Your task to perform on an android device: Go to privacy settings Image 0: 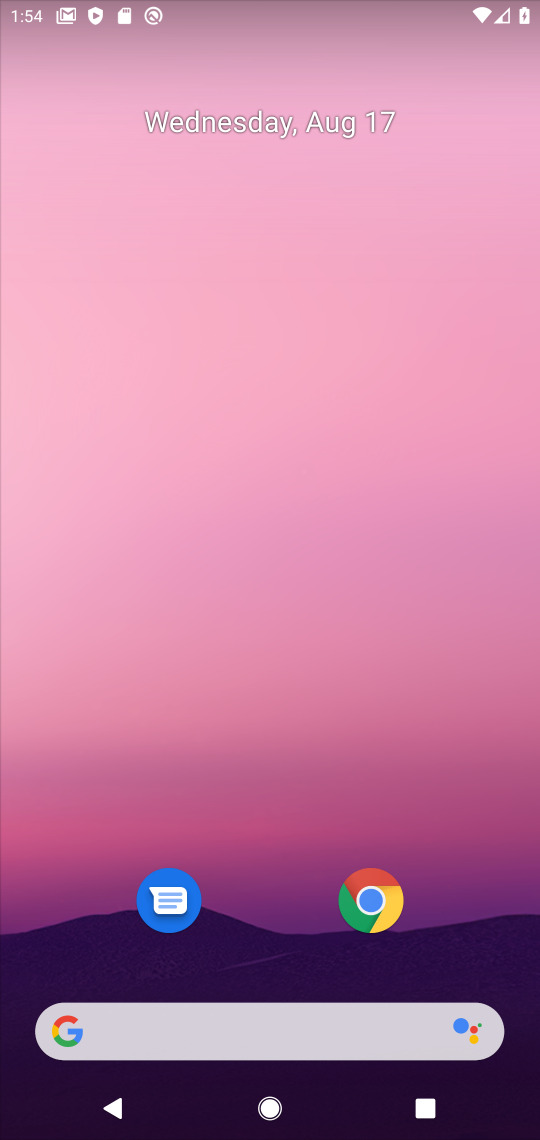
Step 0: drag from (268, 1007) to (337, 245)
Your task to perform on an android device: Go to privacy settings Image 1: 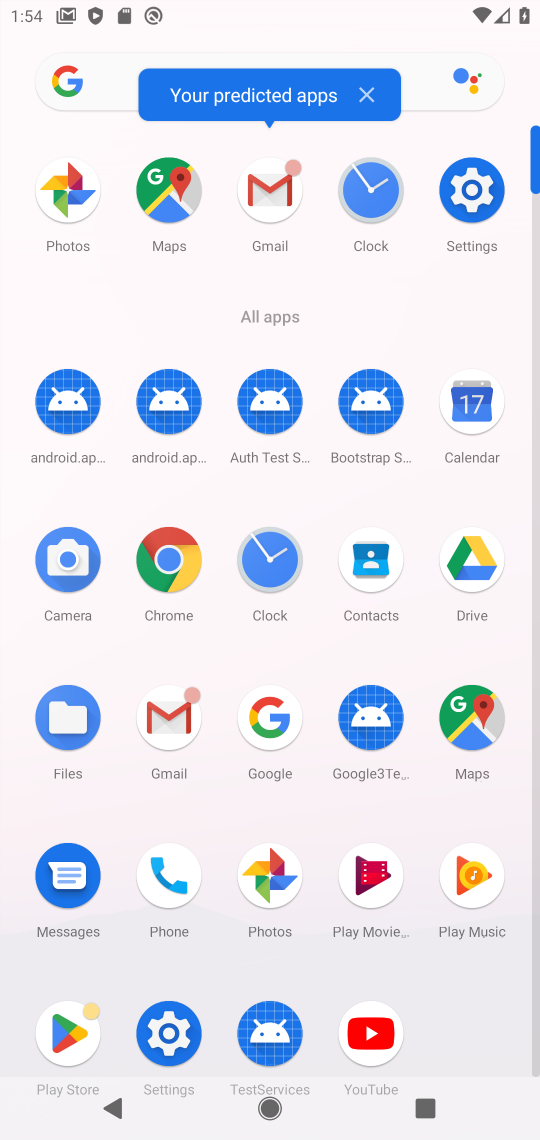
Step 1: click (481, 180)
Your task to perform on an android device: Go to privacy settings Image 2: 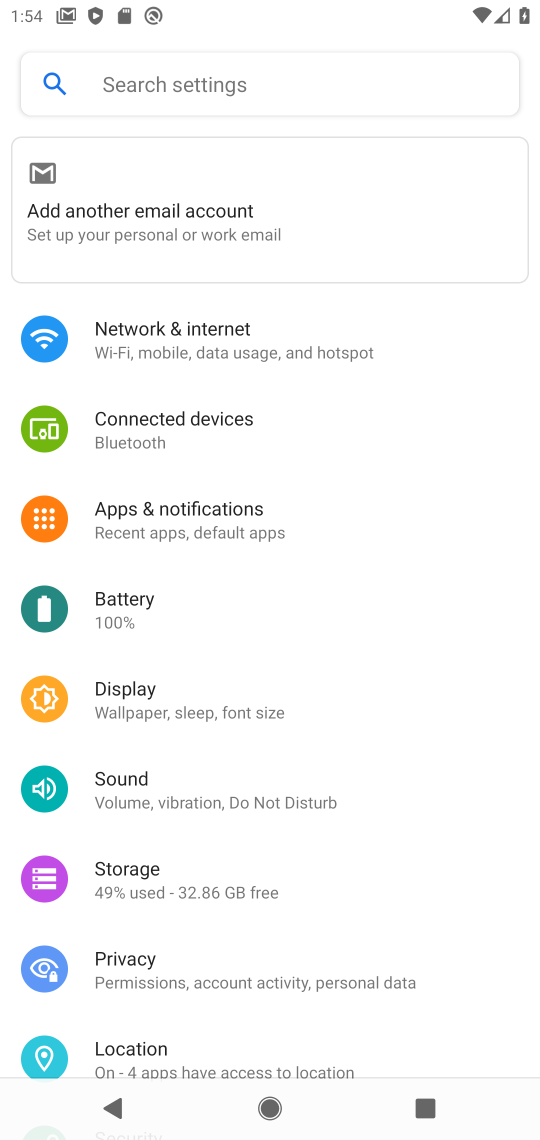
Step 2: click (158, 957)
Your task to perform on an android device: Go to privacy settings Image 3: 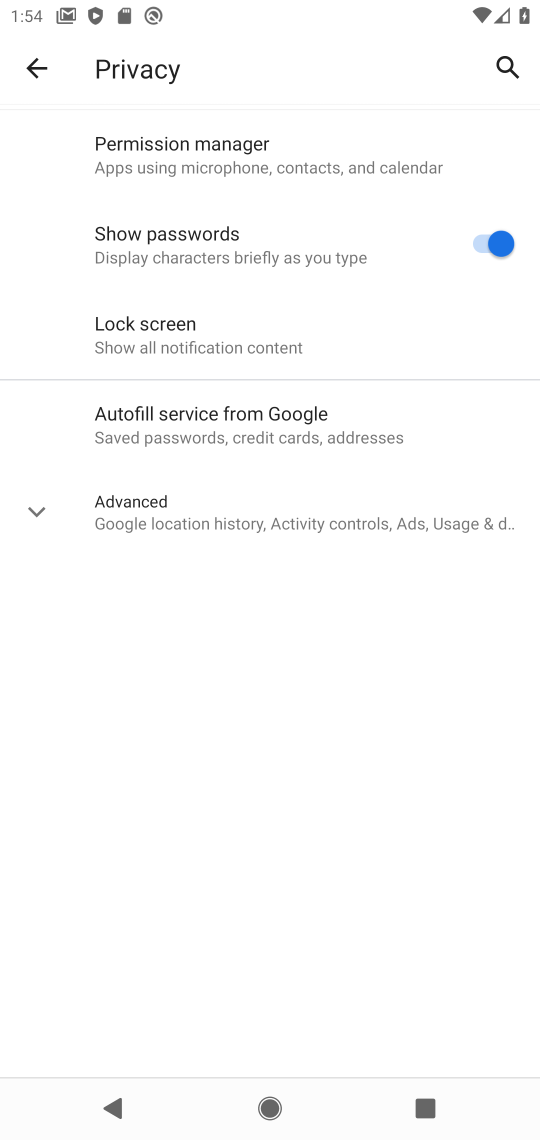
Step 3: task complete